Your task to perform on an android device: open a bookmark in the chrome app Image 0: 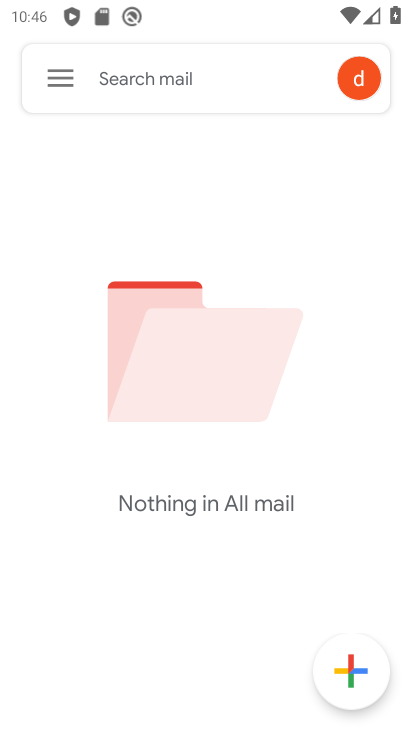
Step 0: press home button
Your task to perform on an android device: open a bookmark in the chrome app Image 1: 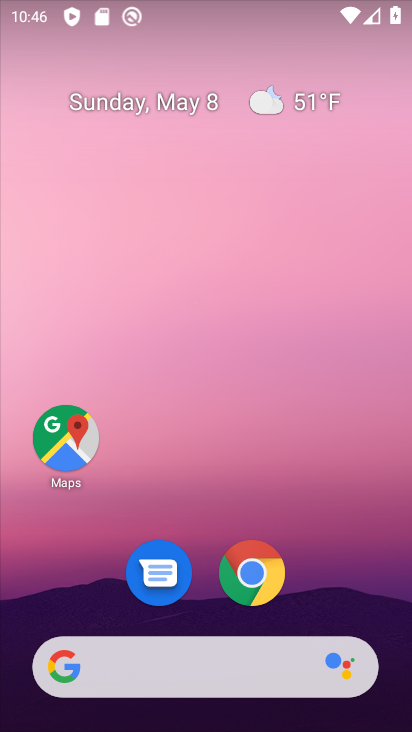
Step 1: click (265, 569)
Your task to perform on an android device: open a bookmark in the chrome app Image 2: 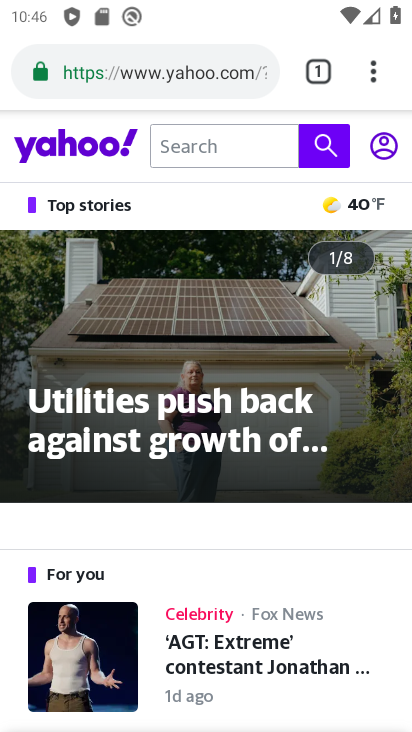
Step 2: click (367, 72)
Your task to perform on an android device: open a bookmark in the chrome app Image 3: 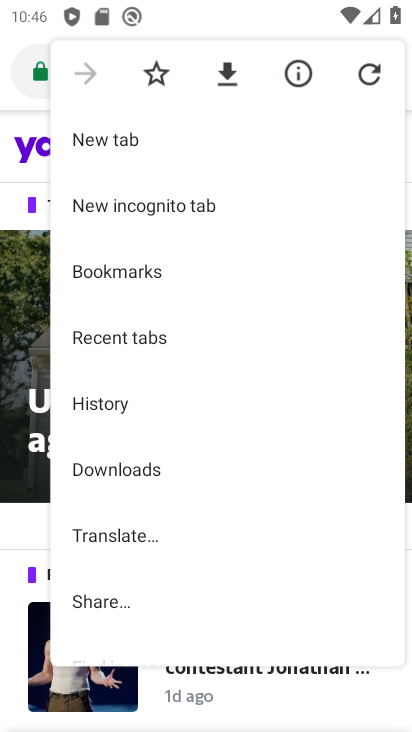
Step 3: click (119, 279)
Your task to perform on an android device: open a bookmark in the chrome app Image 4: 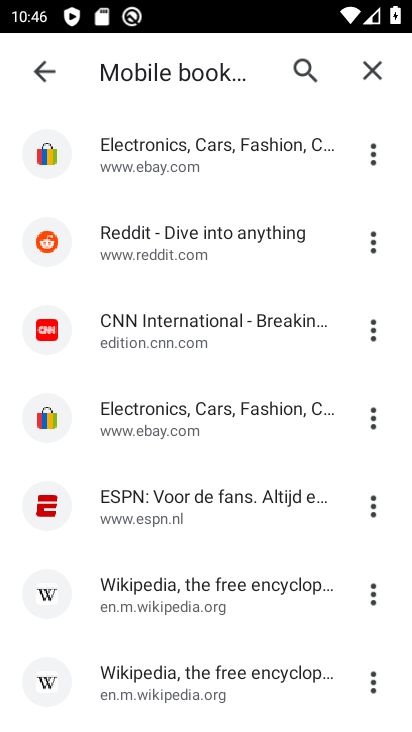
Step 4: task complete